Your task to perform on an android device: What is the news today? Image 0: 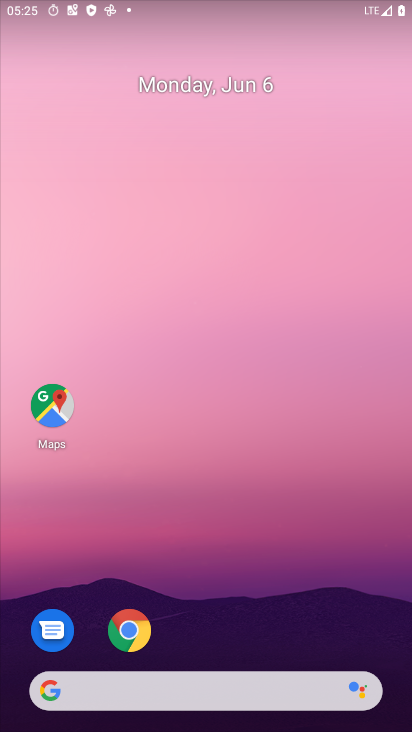
Step 0: drag from (291, 645) to (345, 74)
Your task to perform on an android device: What is the news today? Image 1: 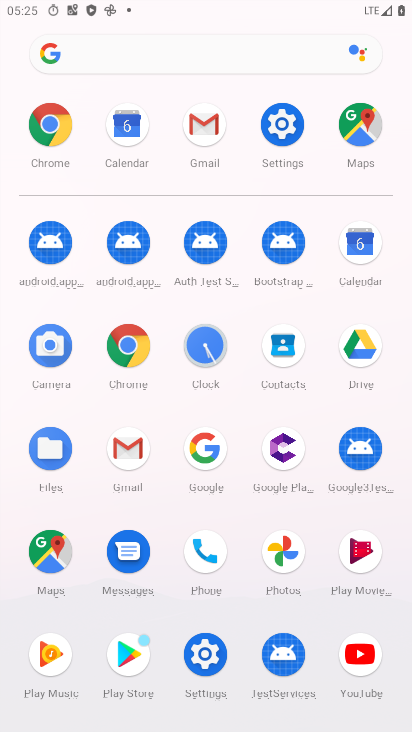
Step 1: click (370, 237)
Your task to perform on an android device: What is the news today? Image 2: 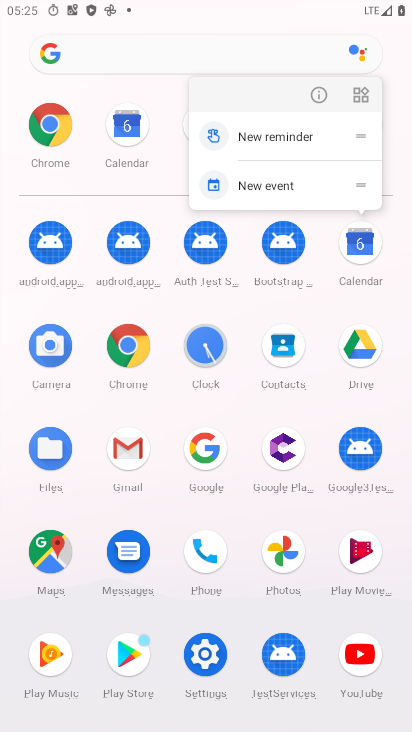
Step 2: click (135, 342)
Your task to perform on an android device: What is the news today? Image 3: 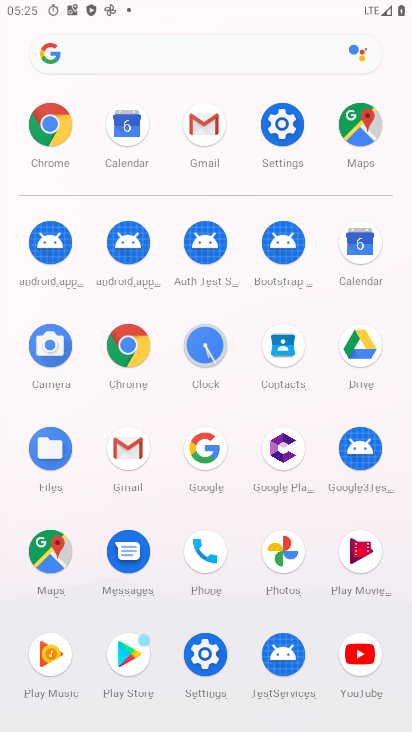
Step 3: click (128, 349)
Your task to perform on an android device: What is the news today? Image 4: 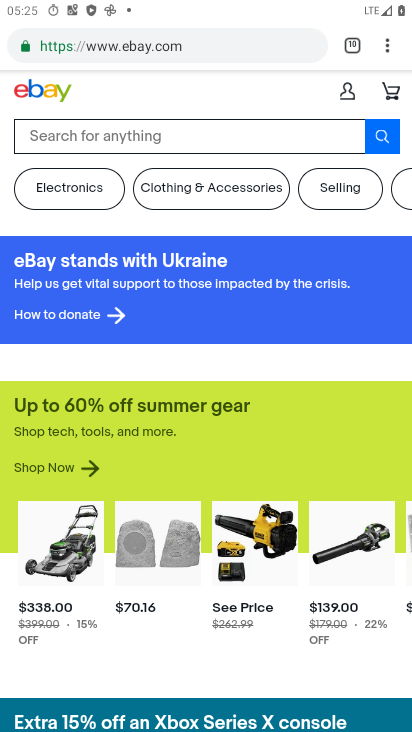
Step 4: click (171, 43)
Your task to perform on an android device: What is the news today? Image 5: 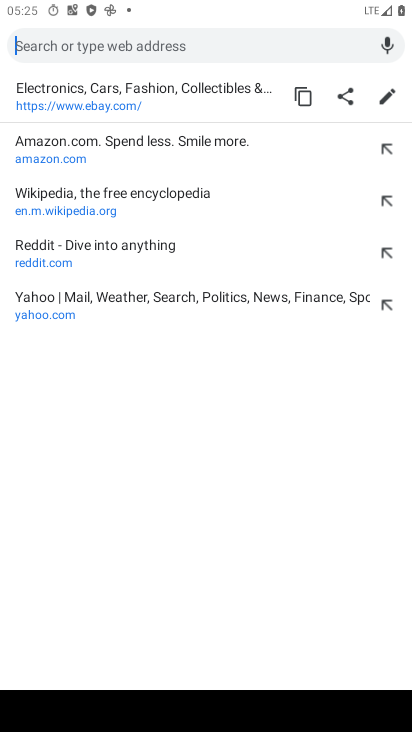
Step 5: type "What is the news today?"
Your task to perform on an android device: What is the news today? Image 6: 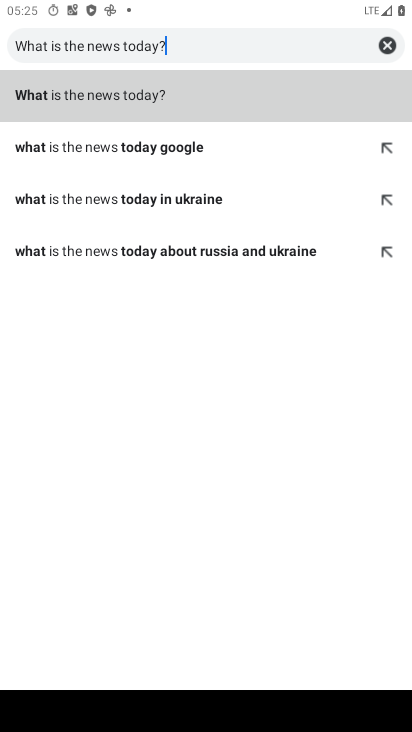
Step 6: click (129, 87)
Your task to perform on an android device: What is the news today? Image 7: 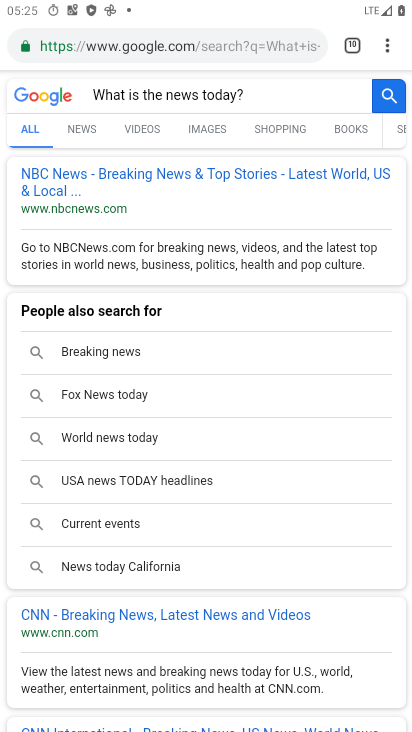
Step 7: click (85, 125)
Your task to perform on an android device: What is the news today? Image 8: 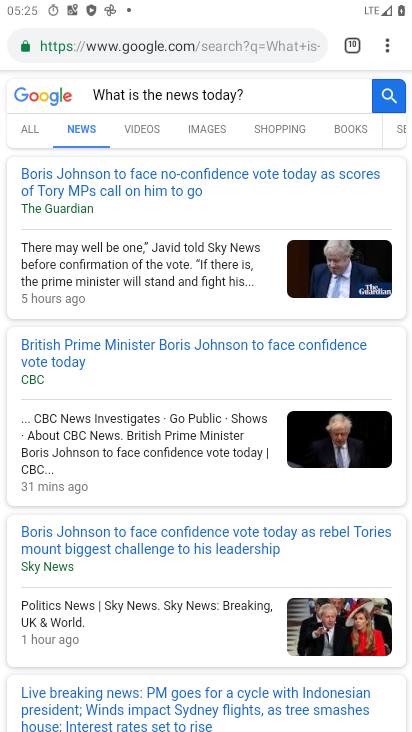
Step 8: task complete